Your task to perform on an android device: When is my next appointment? Image 0: 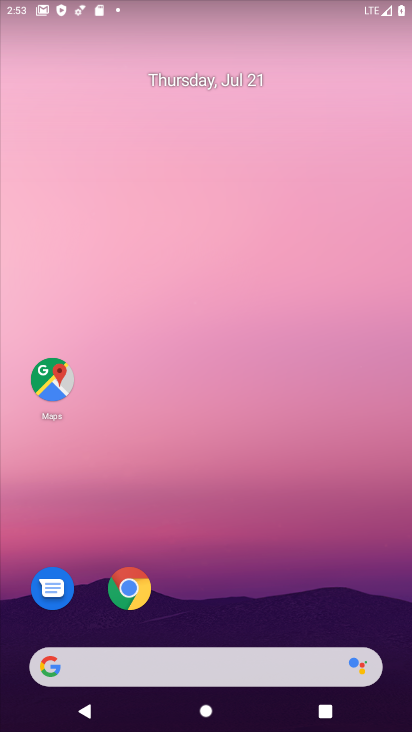
Step 0: drag from (218, 610) to (235, 22)
Your task to perform on an android device: When is my next appointment? Image 1: 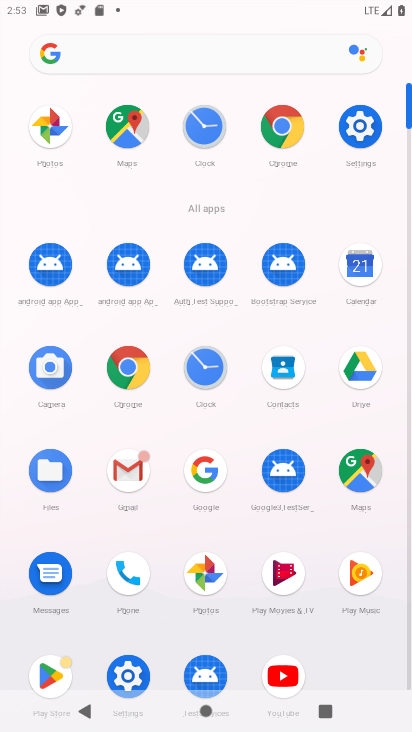
Step 1: click (353, 263)
Your task to perform on an android device: When is my next appointment? Image 2: 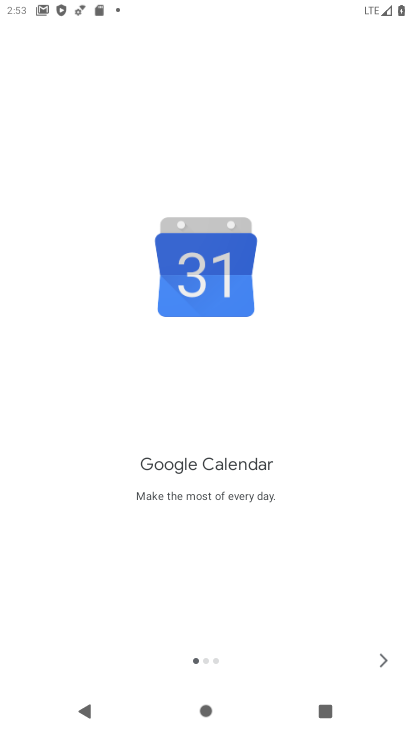
Step 2: click (390, 661)
Your task to perform on an android device: When is my next appointment? Image 3: 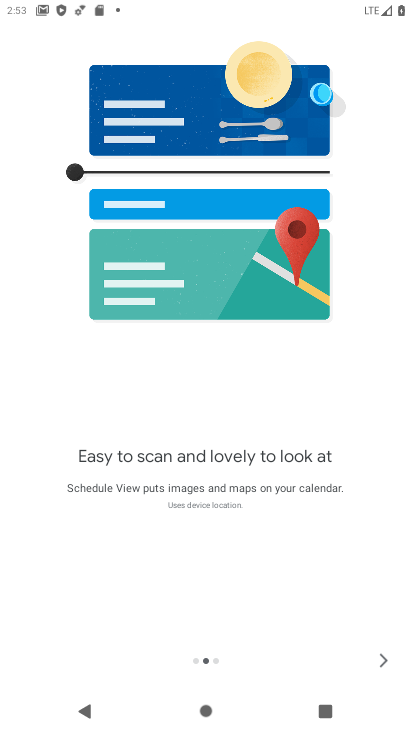
Step 3: click (390, 661)
Your task to perform on an android device: When is my next appointment? Image 4: 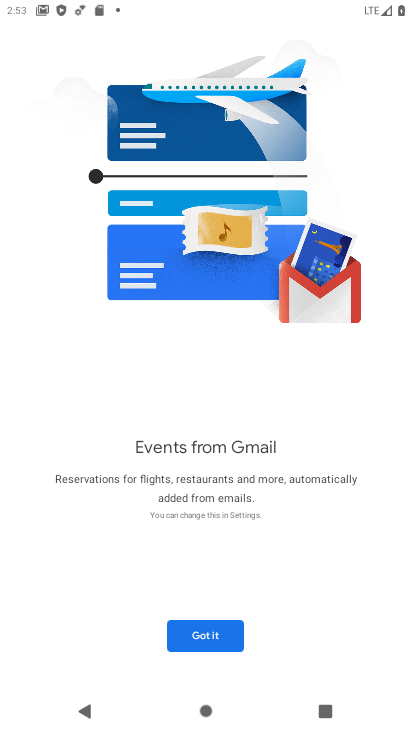
Step 4: click (238, 645)
Your task to perform on an android device: When is my next appointment? Image 5: 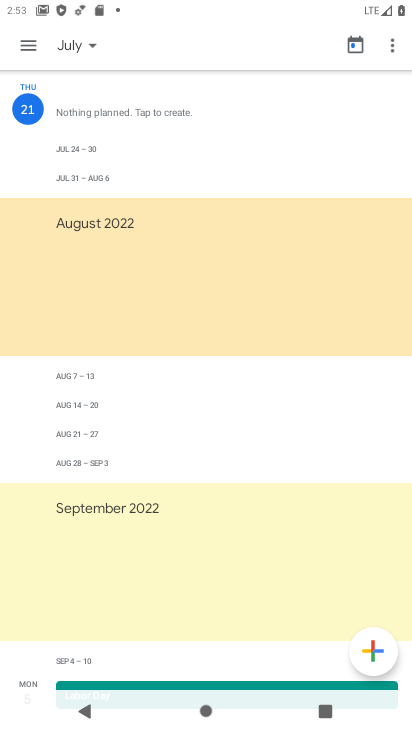
Step 5: click (70, 43)
Your task to perform on an android device: When is my next appointment? Image 6: 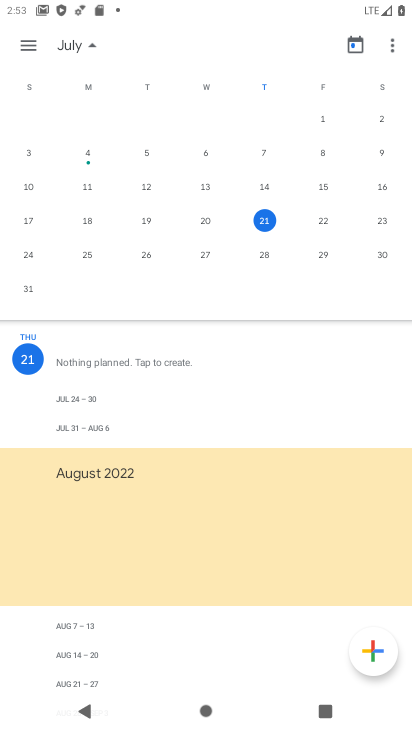
Step 6: click (263, 219)
Your task to perform on an android device: When is my next appointment? Image 7: 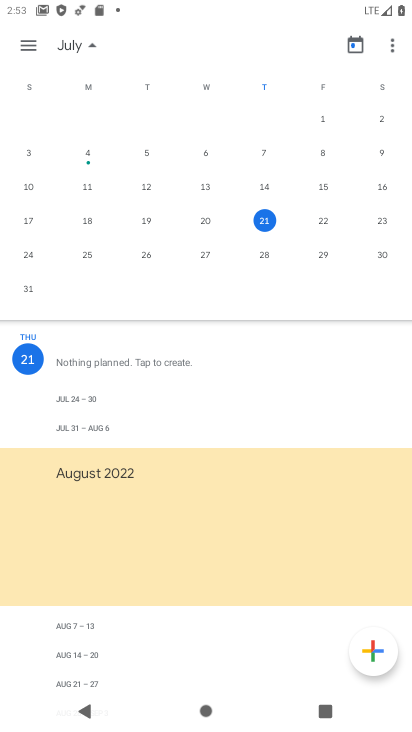
Step 7: task complete